Your task to perform on an android device: Open internet settings Image 0: 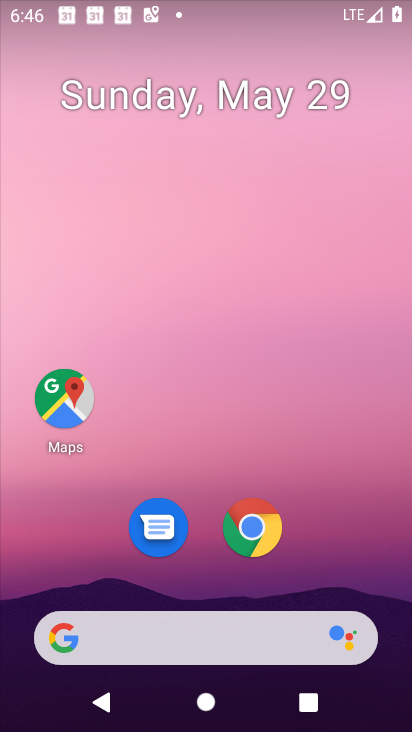
Step 0: drag from (377, 615) to (283, 43)
Your task to perform on an android device: Open internet settings Image 1: 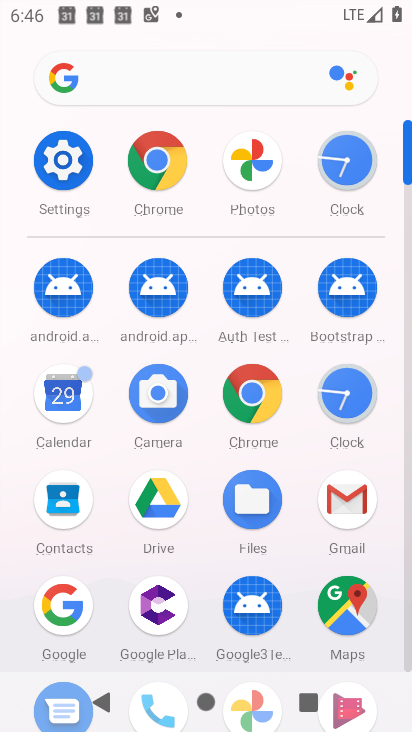
Step 1: click (47, 162)
Your task to perform on an android device: Open internet settings Image 2: 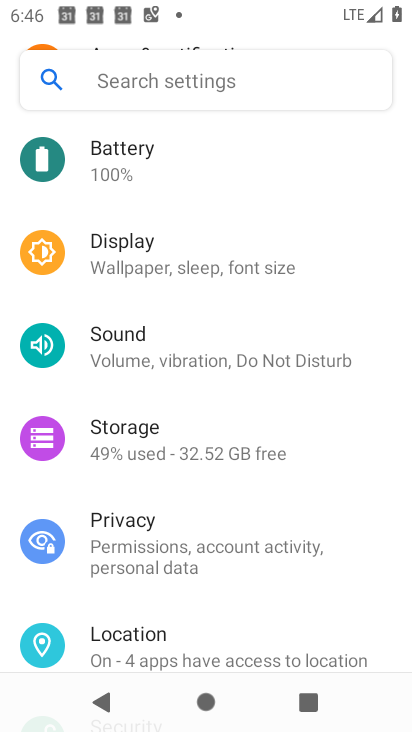
Step 2: drag from (47, 162) to (201, 599)
Your task to perform on an android device: Open internet settings Image 3: 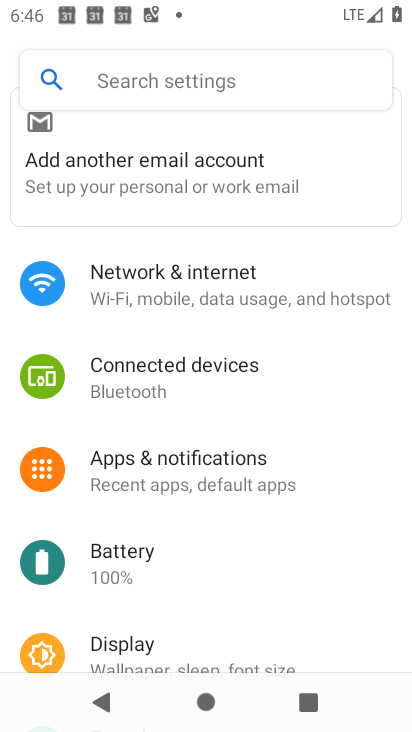
Step 3: click (145, 287)
Your task to perform on an android device: Open internet settings Image 4: 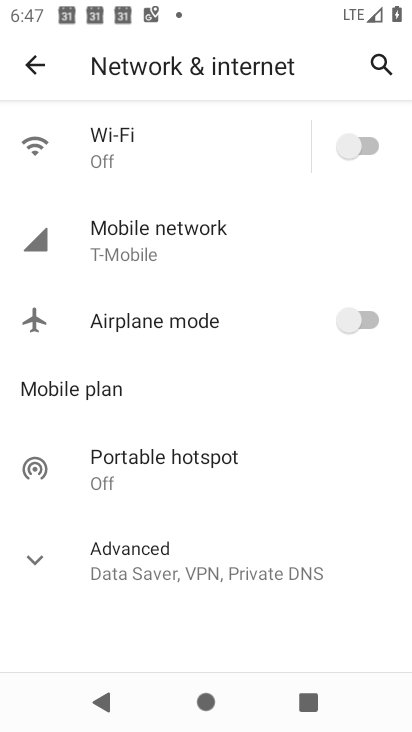
Step 4: task complete